Your task to perform on an android device: check data usage Image 0: 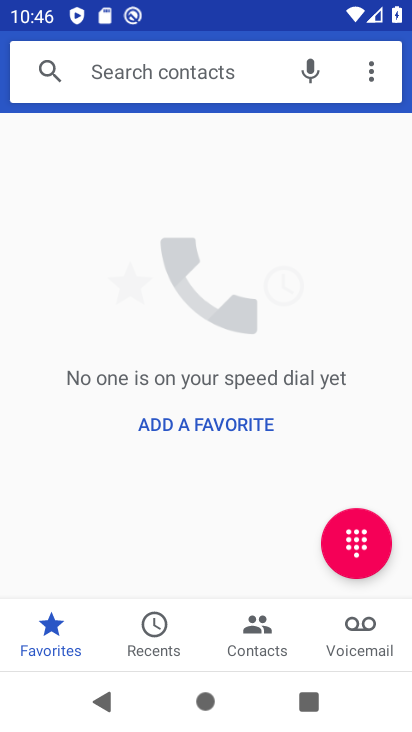
Step 0: press home button
Your task to perform on an android device: check data usage Image 1: 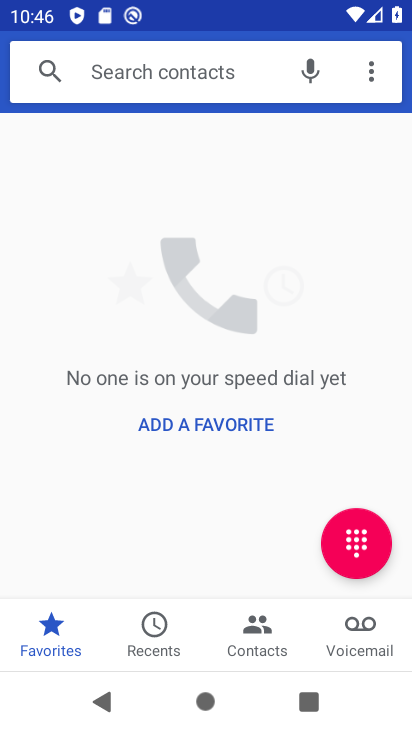
Step 1: press home button
Your task to perform on an android device: check data usage Image 2: 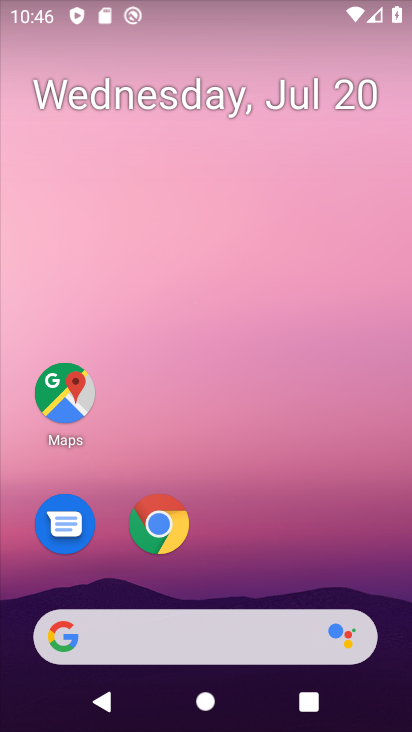
Step 2: drag from (266, 555) to (268, 35)
Your task to perform on an android device: check data usage Image 3: 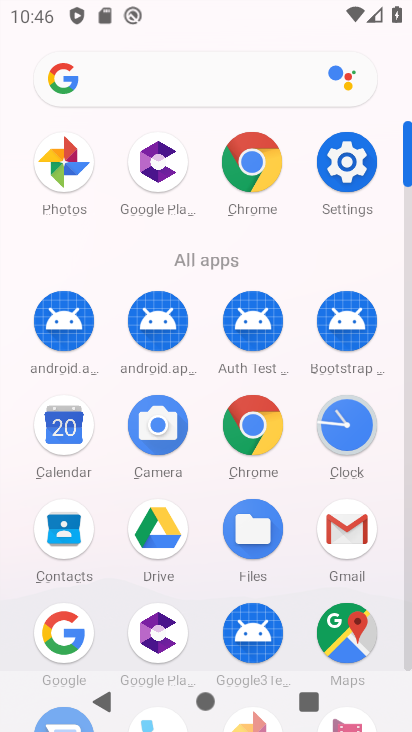
Step 3: click (339, 158)
Your task to perform on an android device: check data usage Image 4: 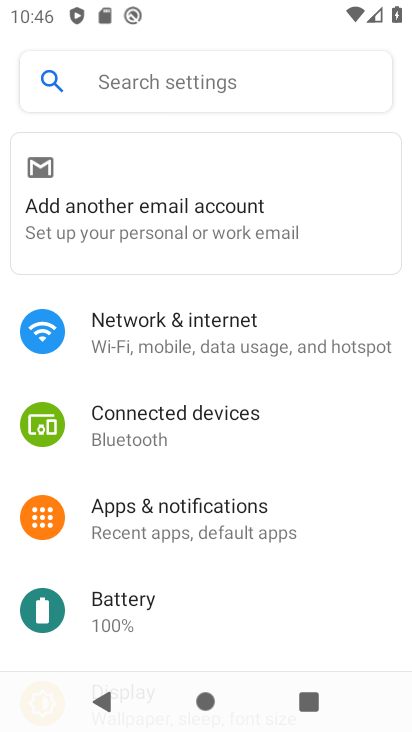
Step 4: click (209, 327)
Your task to perform on an android device: check data usage Image 5: 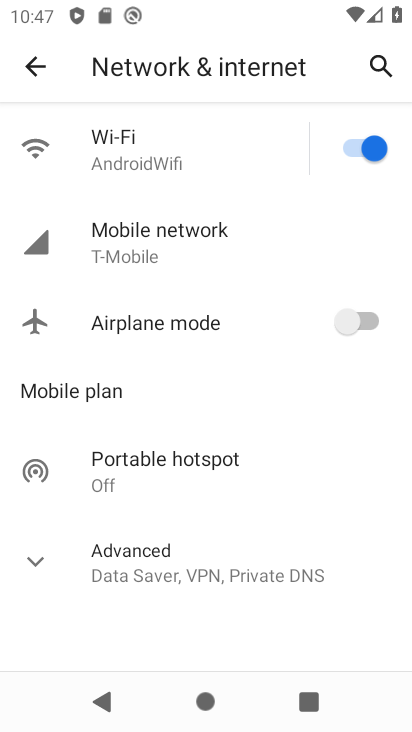
Step 5: task complete